Your task to perform on an android device: open chrome and create a bookmark for the current page Image 0: 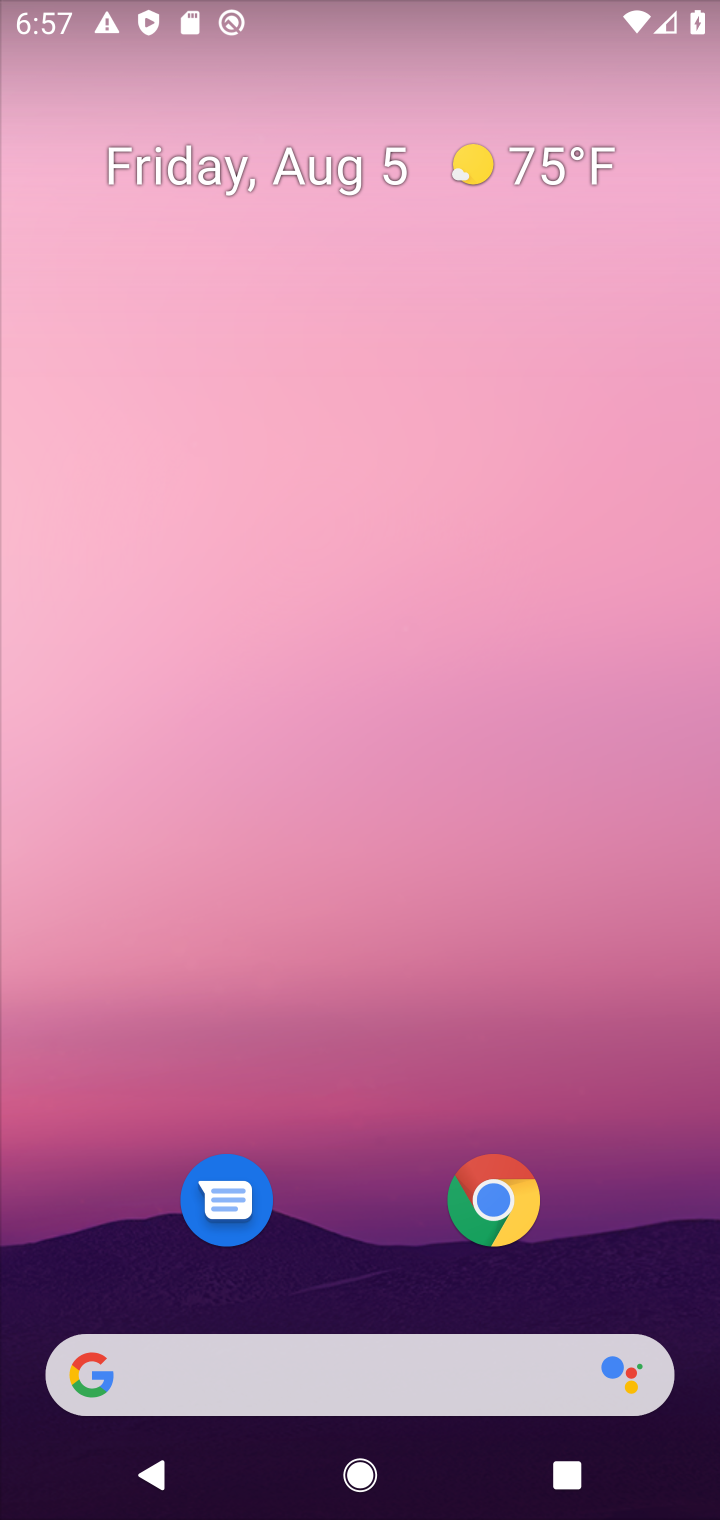
Step 0: press home button
Your task to perform on an android device: open chrome and create a bookmark for the current page Image 1: 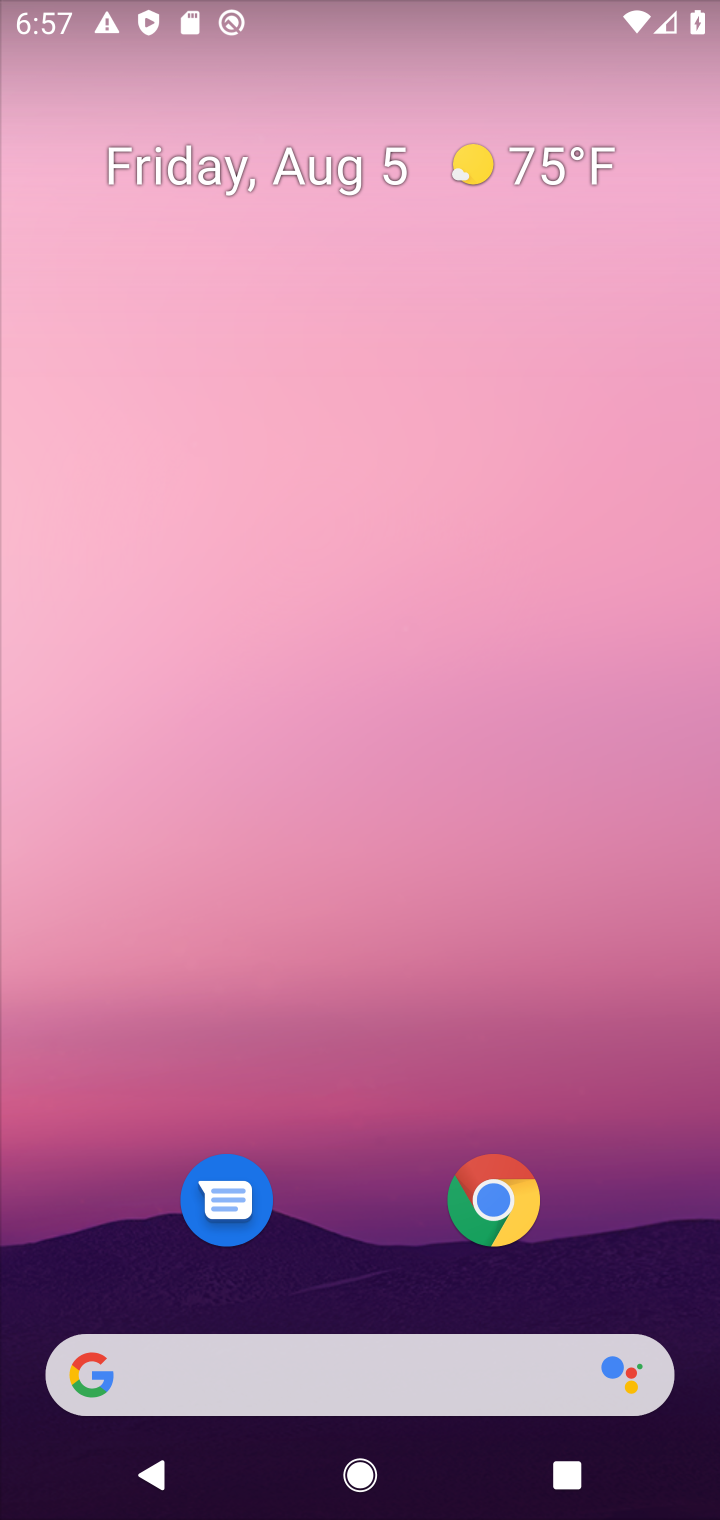
Step 1: click (514, 1215)
Your task to perform on an android device: open chrome and create a bookmark for the current page Image 2: 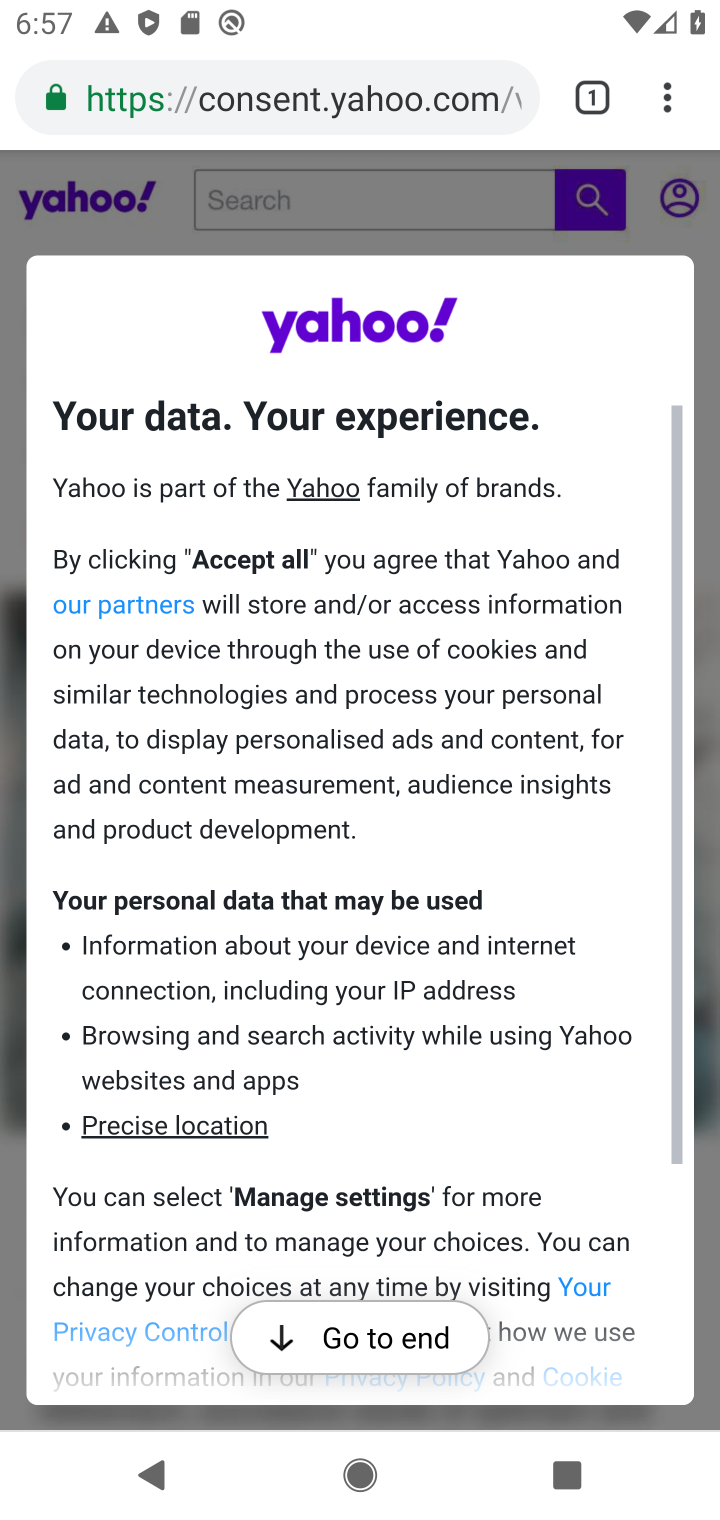
Step 2: click (652, 97)
Your task to perform on an android device: open chrome and create a bookmark for the current page Image 3: 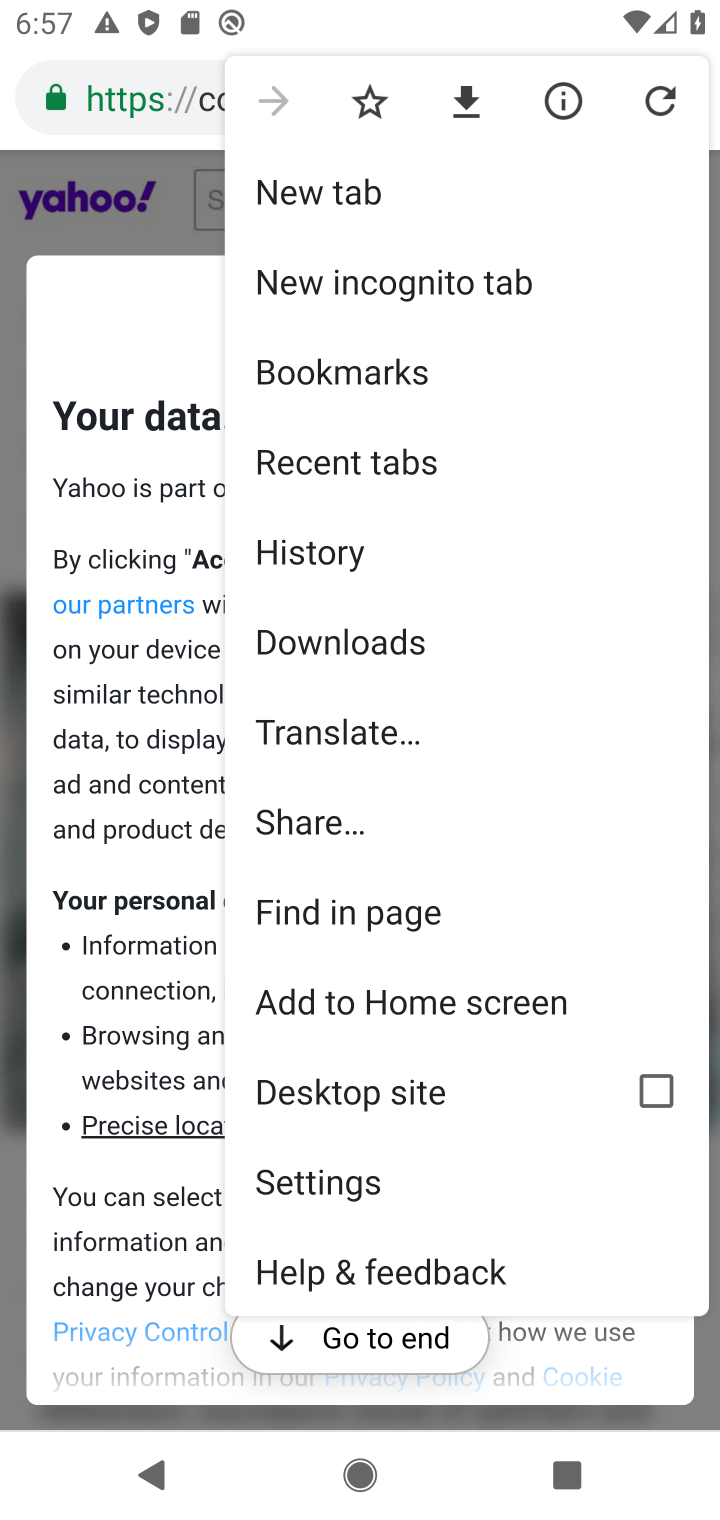
Step 3: click (373, 94)
Your task to perform on an android device: open chrome and create a bookmark for the current page Image 4: 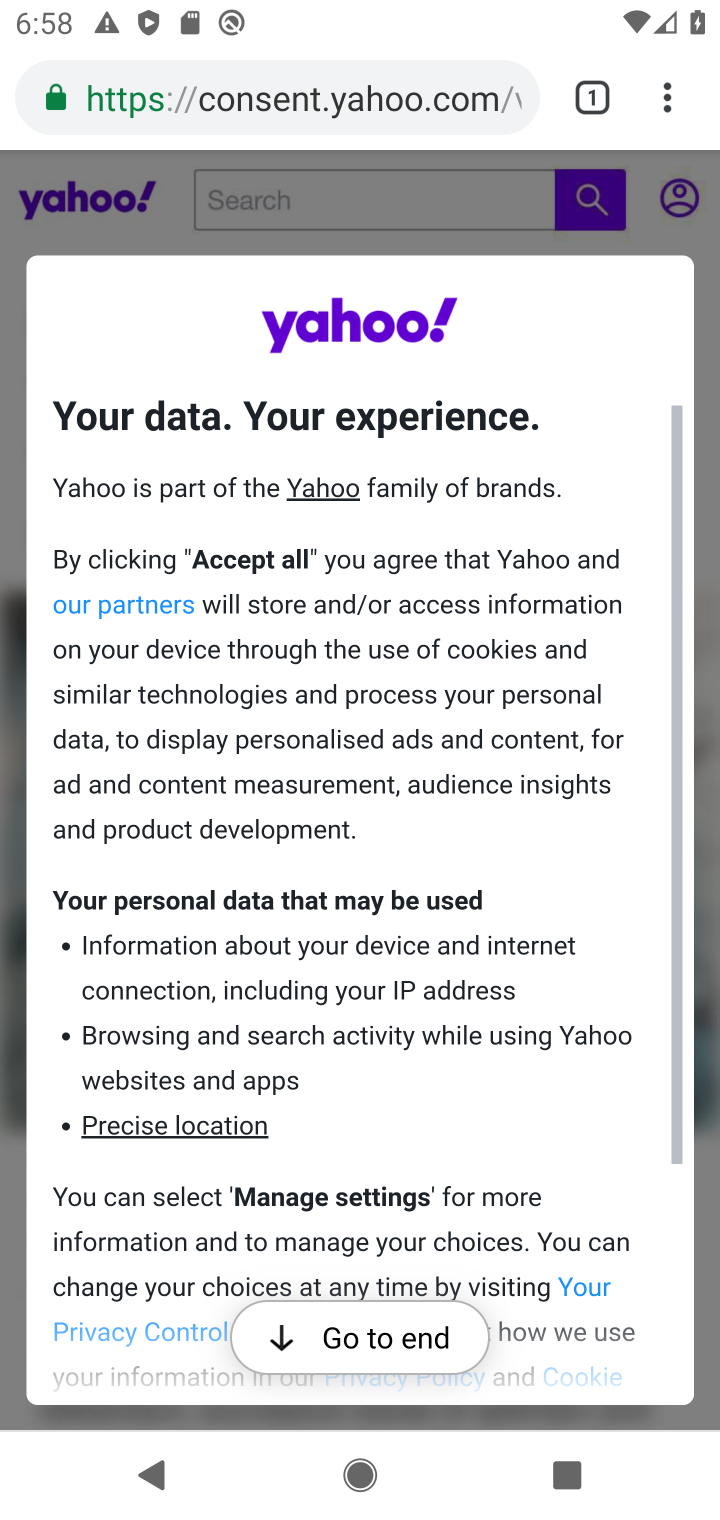
Step 4: task complete